Your task to perform on an android device: Open internet settings Image 0: 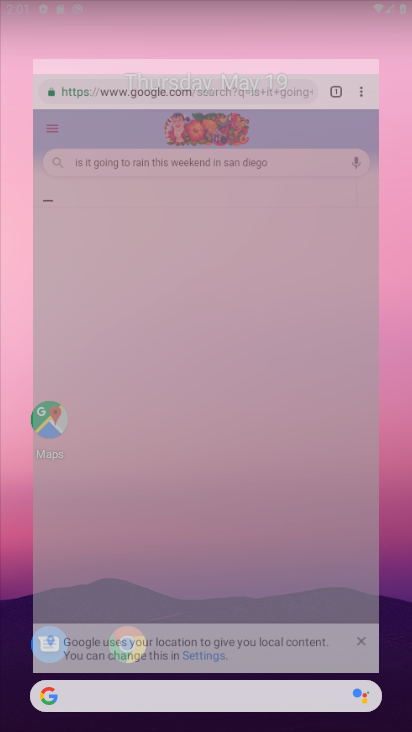
Step 0: drag from (295, 601) to (271, 352)
Your task to perform on an android device: Open internet settings Image 1: 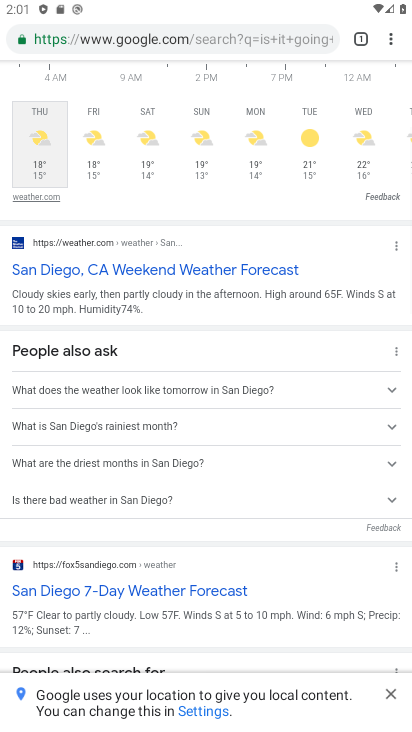
Step 1: press home button
Your task to perform on an android device: Open internet settings Image 2: 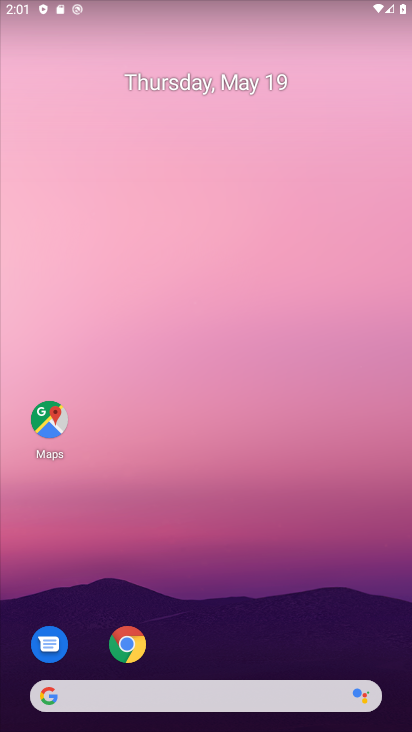
Step 2: drag from (258, 545) to (323, 176)
Your task to perform on an android device: Open internet settings Image 3: 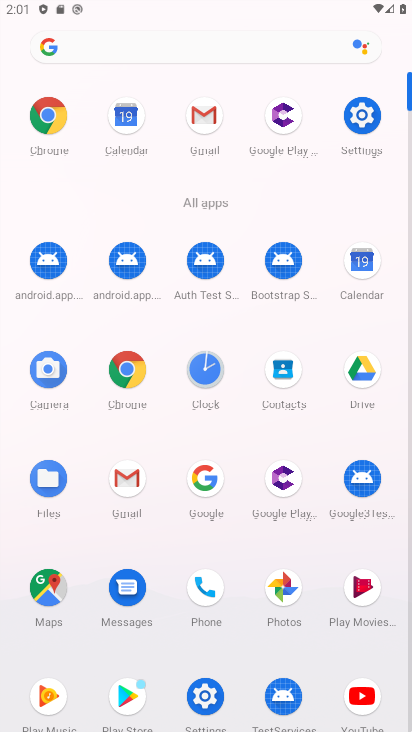
Step 3: click (360, 118)
Your task to perform on an android device: Open internet settings Image 4: 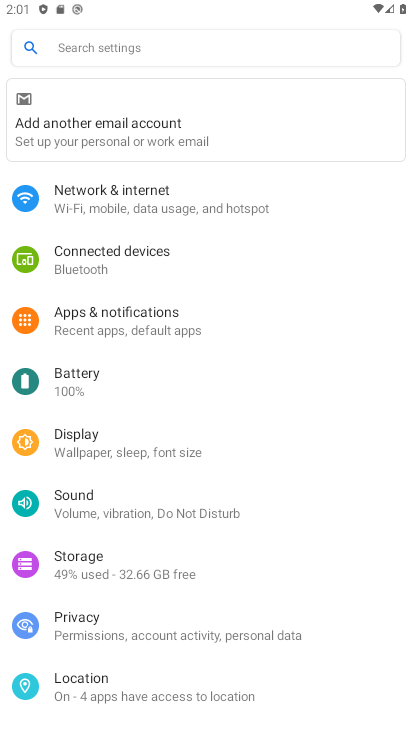
Step 4: click (172, 202)
Your task to perform on an android device: Open internet settings Image 5: 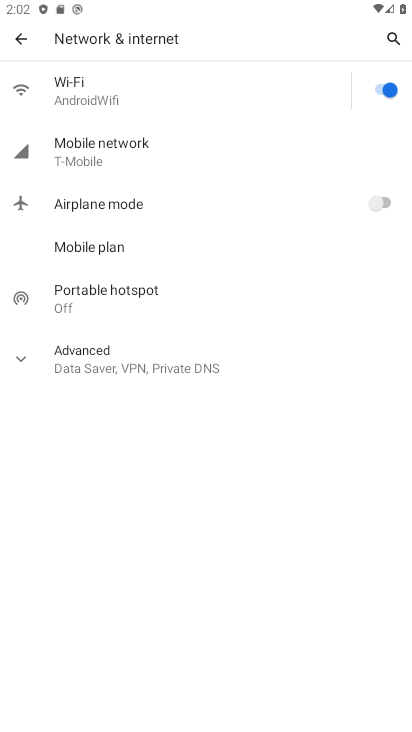
Step 5: task complete